Your task to perform on an android device: change keyboard looks Image 0: 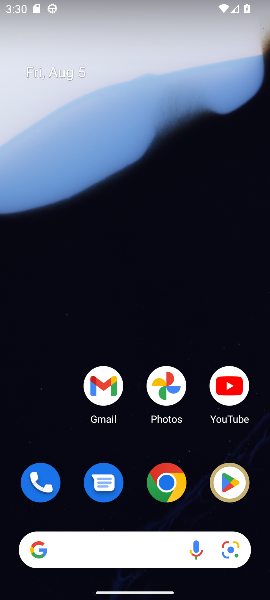
Step 0: press home button
Your task to perform on an android device: change keyboard looks Image 1: 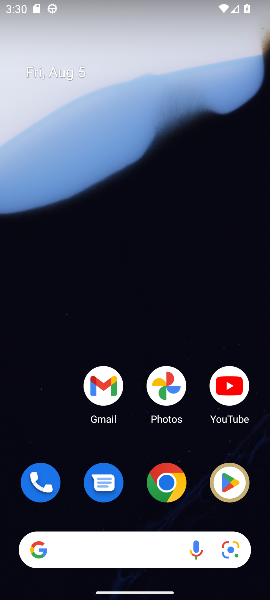
Step 1: drag from (134, 462) to (183, 11)
Your task to perform on an android device: change keyboard looks Image 2: 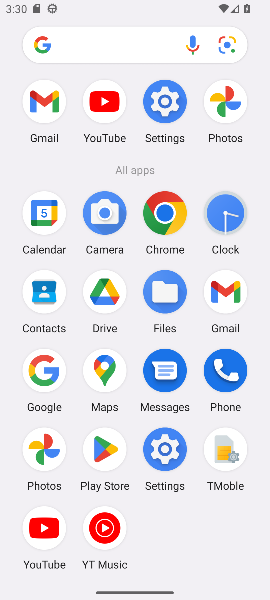
Step 2: click (162, 444)
Your task to perform on an android device: change keyboard looks Image 3: 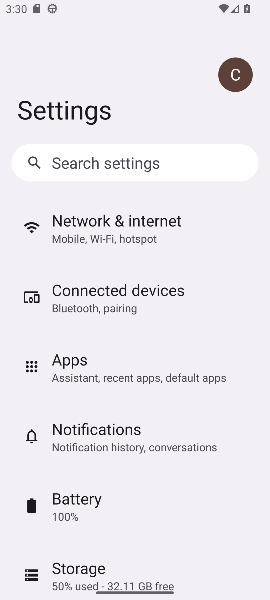
Step 3: drag from (122, 553) to (172, 44)
Your task to perform on an android device: change keyboard looks Image 4: 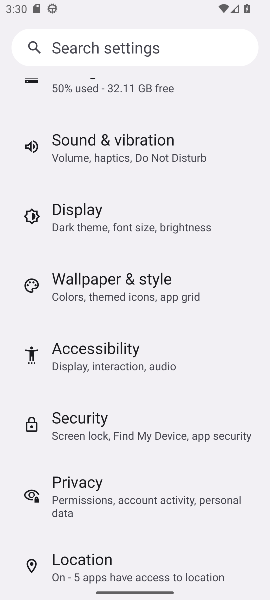
Step 4: drag from (117, 541) to (157, 79)
Your task to perform on an android device: change keyboard looks Image 5: 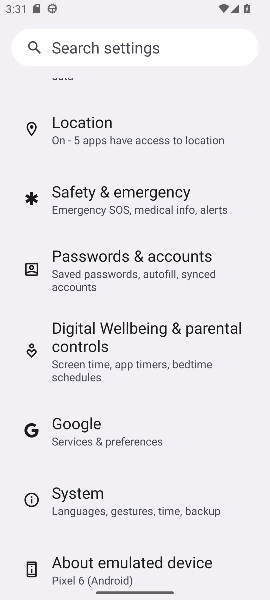
Step 5: click (126, 498)
Your task to perform on an android device: change keyboard looks Image 6: 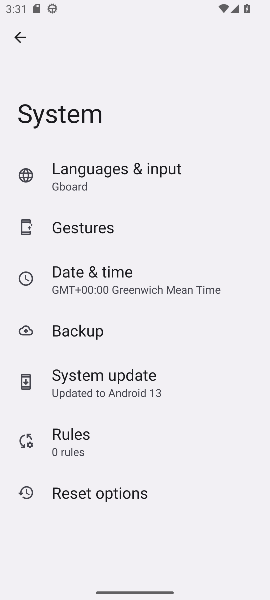
Step 6: click (42, 171)
Your task to perform on an android device: change keyboard looks Image 7: 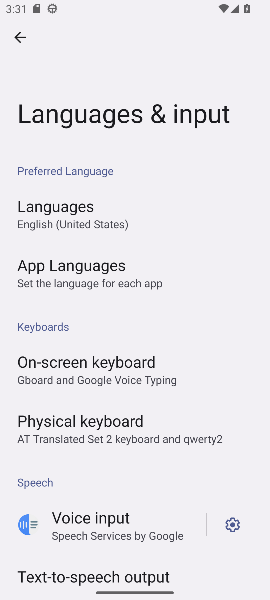
Step 7: click (170, 358)
Your task to perform on an android device: change keyboard looks Image 8: 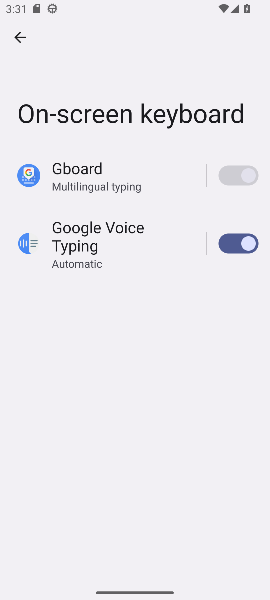
Step 8: click (22, 31)
Your task to perform on an android device: change keyboard looks Image 9: 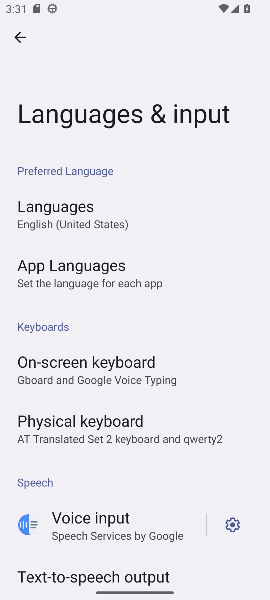
Step 9: click (100, 424)
Your task to perform on an android device: change keyboard looks Image 10: 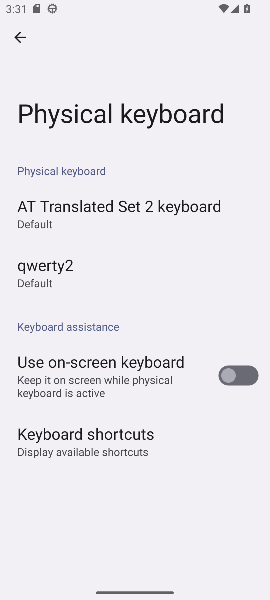
Step 10: click (72, 264)
Your task to perform on an android device: change keyboard looks Image 11: 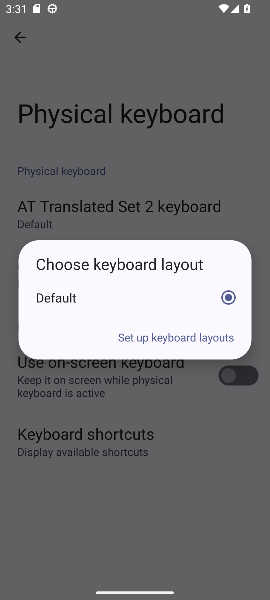
Step 11: task complete